Your task to perform on an android device: change the clock display to show seconds Image 0: 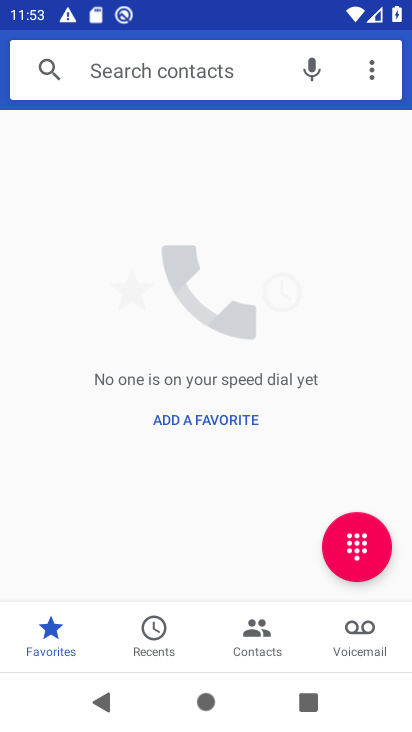
Step 0: press home button
Your task to perform on an android device: change the clock display to show seconds Image 1: 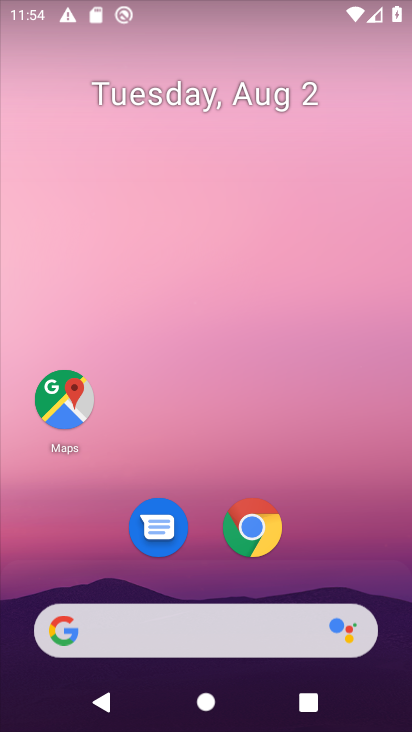
Step 1: drag from (3, 709) to (236, 226)
Your task to perform on an android device: change the clock display to show seconds Image 2: 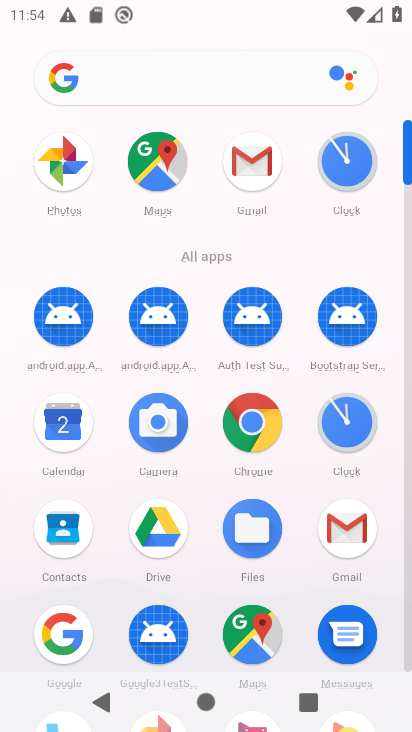
Step 2: drag from (112, 622) to (69, 277)
Your task to perform on an android device: change the clock display to show seconds Image 3: 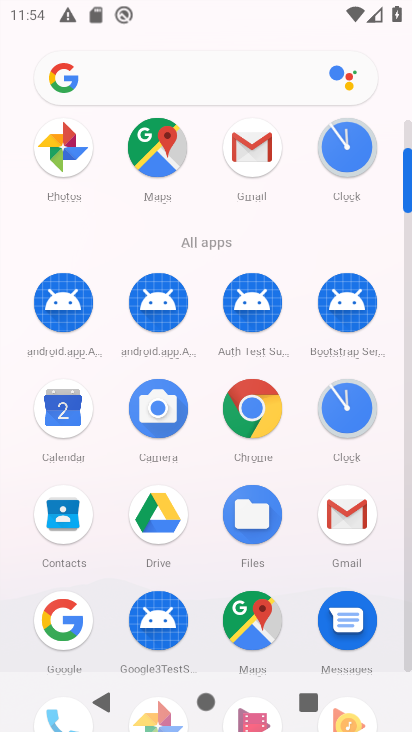
Step 3: click (130, 233)
Your task to perform on an android device: change the clock display to show seconds Image 4: 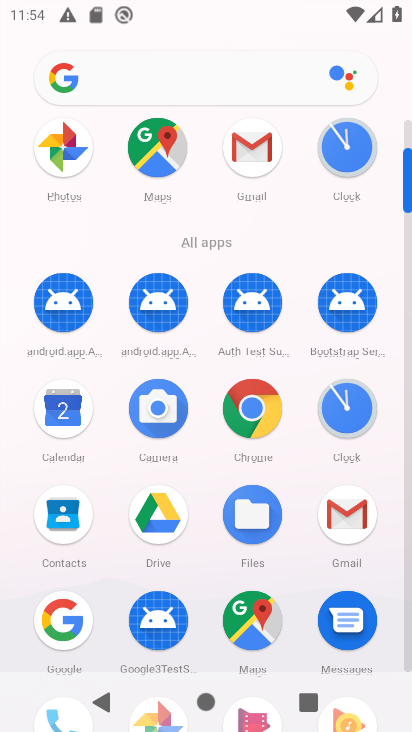
Step 4: click (344, 410)
Your task to perform on an android device: change the clock display to show seconds Image 5: 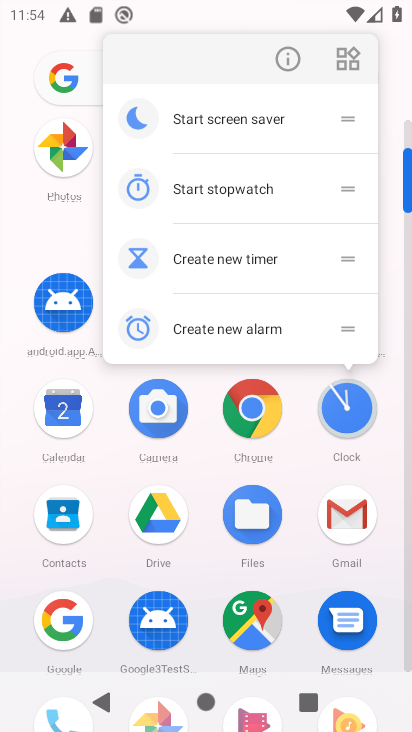
Step 5: click (359, 421)
Your task to perform on an android device: change the clock display to show seconds Image 6: 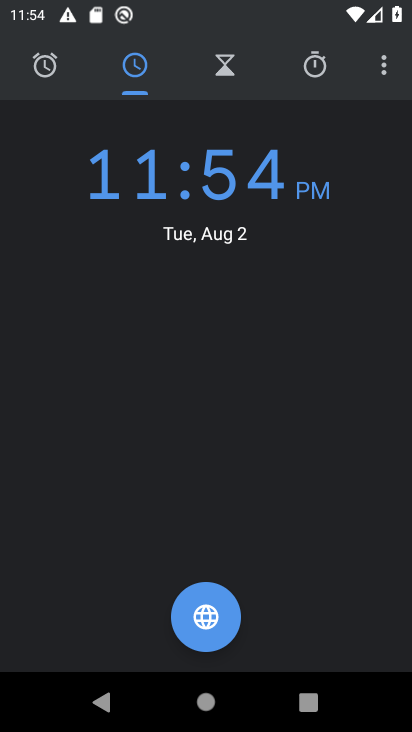
Step 6: click (391, 63)
Your task to perform on an android device: change the clock display to show seconds Image 7: 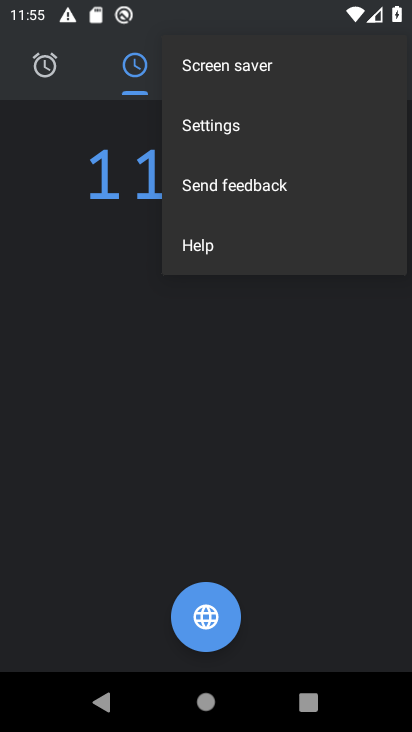
Step 7: click (237, 141)
Your task to perform on an android device: change the clock display to show seconds Image 8: 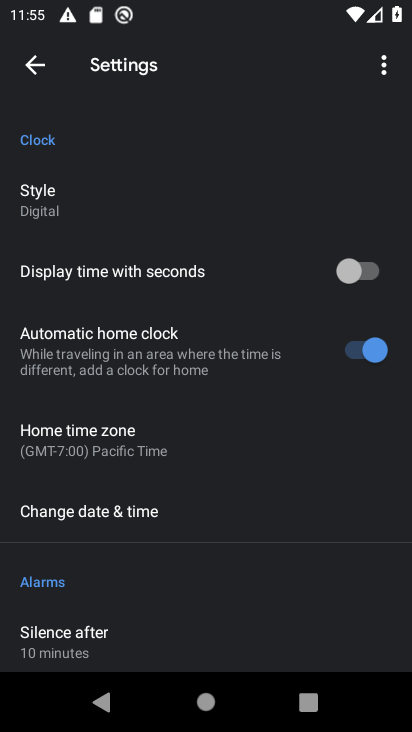
Step 8: click (355, 267)
Your task to perform on an android device: change the clock display to show seconds Image 9: 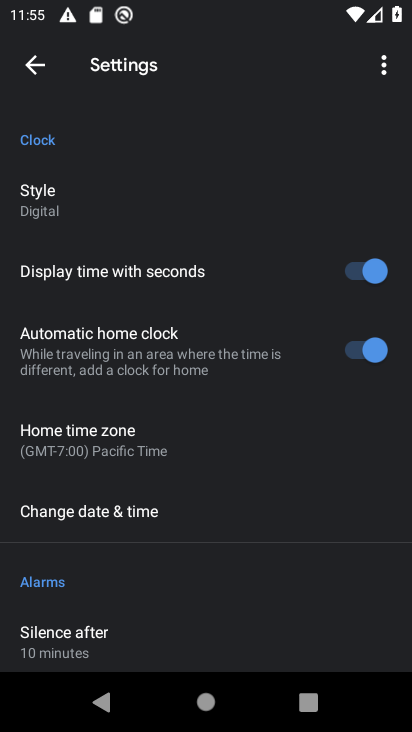
Step 9: task complete